Your task to perform on an android device: Open accessibility settings Image 0: 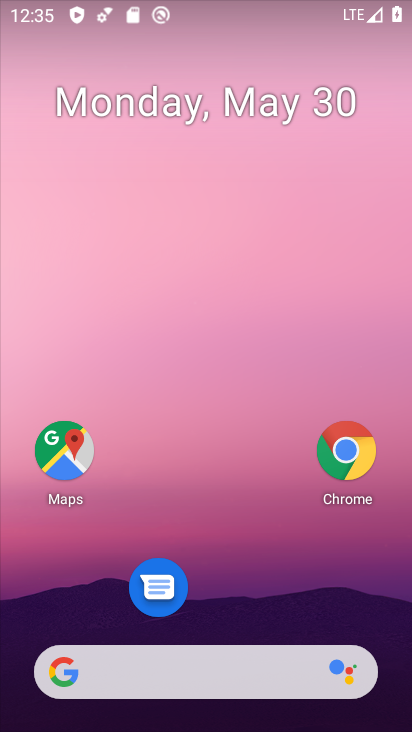
Step 0: drag from (287, 447) to (311, 1)
Your task to perform on an android device: Open accessibility settings Image 1: 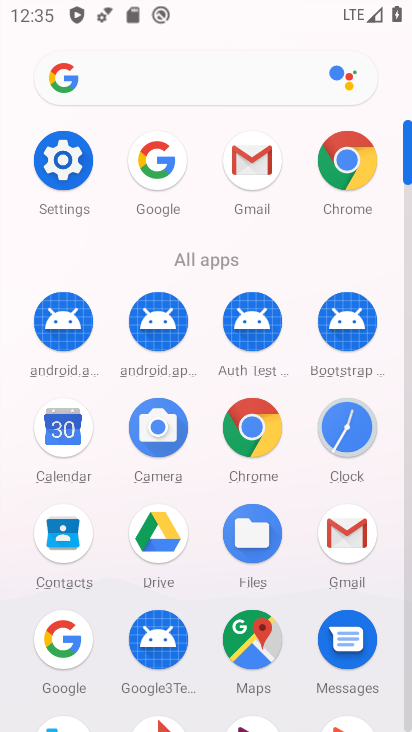
Step 1: click (66, 169)
Your task to perform on an android device: Open accessibility settings Image 2: 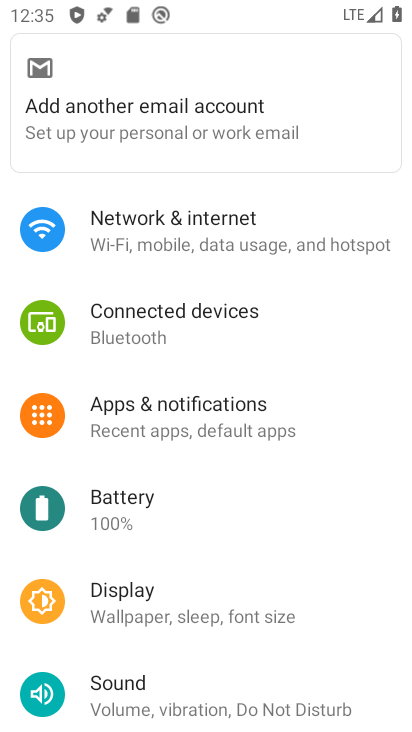
Step 2: drag from (204, 653) to (238, 65)
Your task to perform on an android device: Open accessibility settings Image 3: 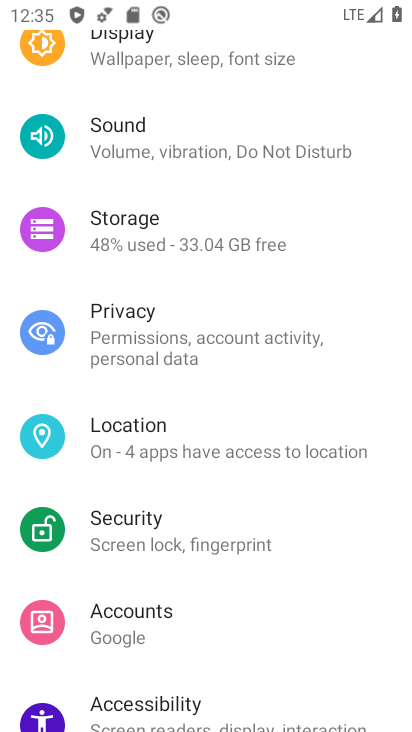
Step 3: drag from (186, 640) to (213, 344)
Your task to perform on an android device: Open accessibility settings Image 4: 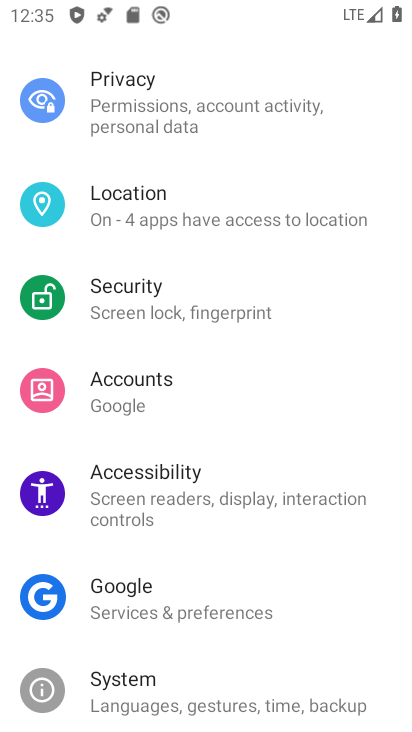
Step 4: click (174, 506)
Your task to perform on an android device: Open accessibility settings Image 5: 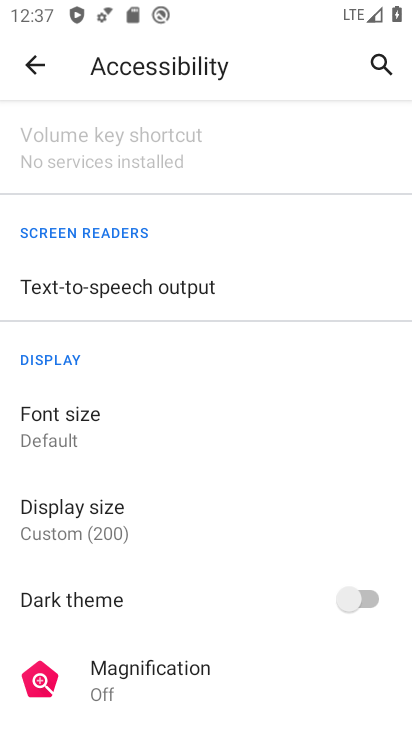
Step 5: task complete